Your task to perform on an android device: Open CNN.com Image 0: 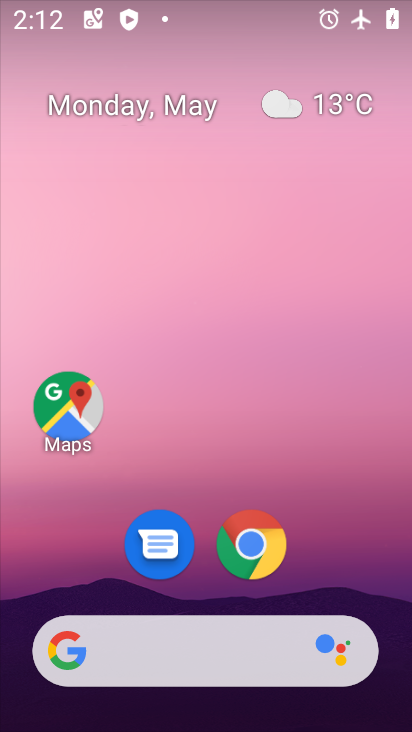
Step 0: click (262, 546)
Your task to perform on an android device: Open CNN.com Image 1: 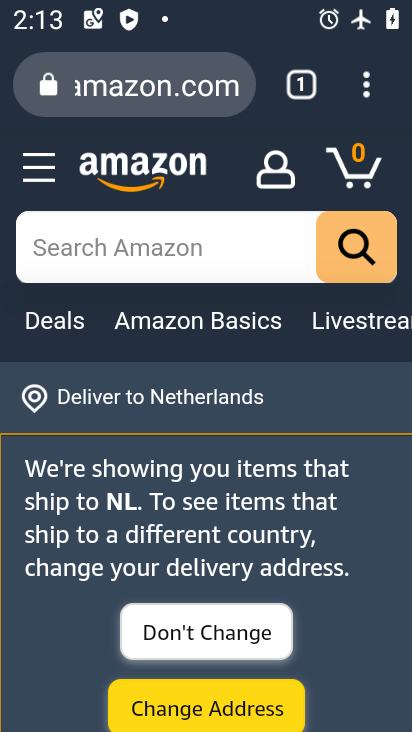
Step 1: click (131, 91)
Your task to perform on an android device: Open CNN.com Image 2: 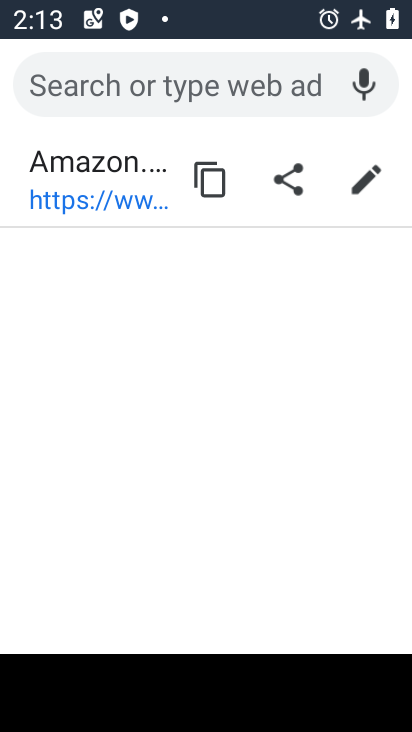
Step 2: type "cnn"
Your task to perform on an android device: Open CNN.com Image 3: 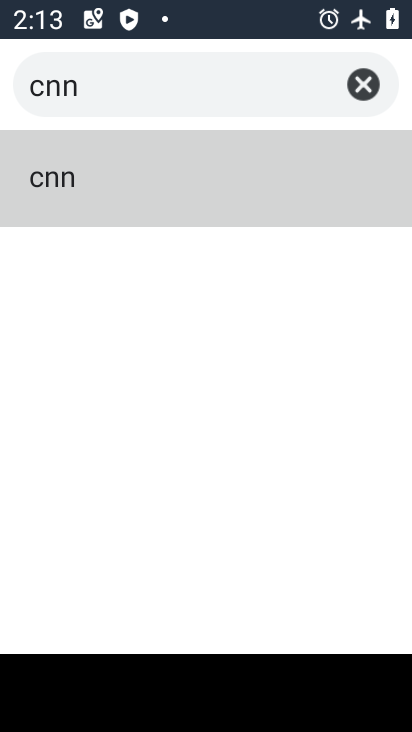
Step 3: click (63, 178)
Your task to perform on an android device: Open CNN.com Image 4: 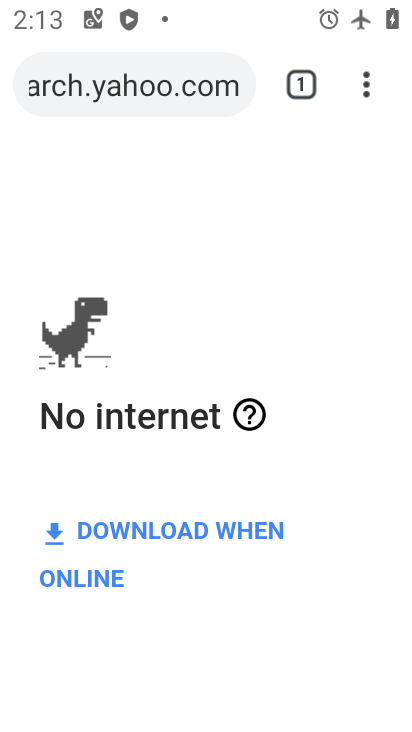
Step 4: task complete